Your task to perform on an android device: turn off wifi Image 0: 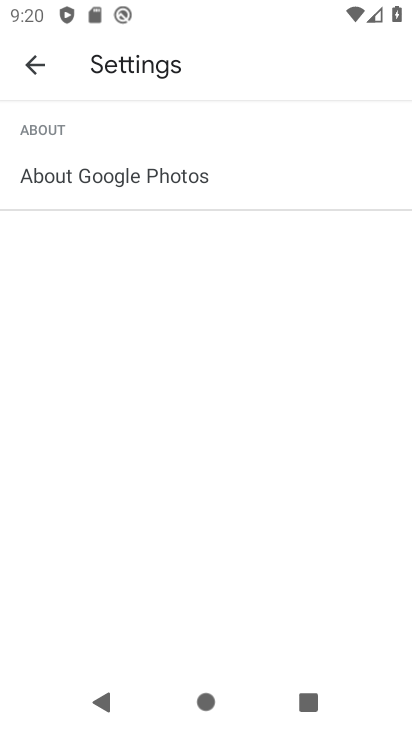
Step 0: press home button
Your task to perform on an android device: turn off wifi Image 1: 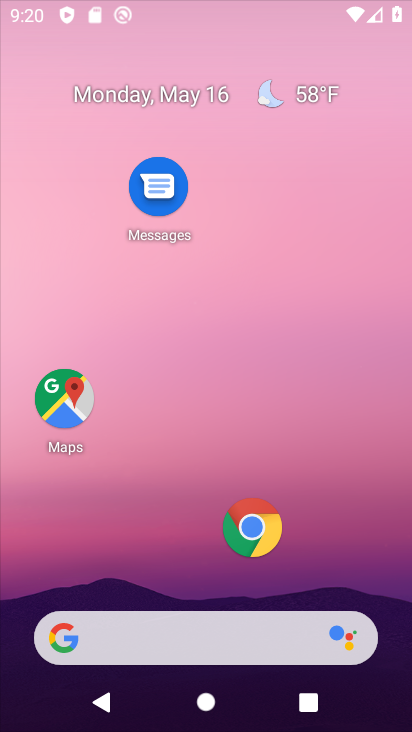
Step 1: drag from (204, 578) to (256, 59)
Your task to perform on an android device: turn off wifi Image 2: 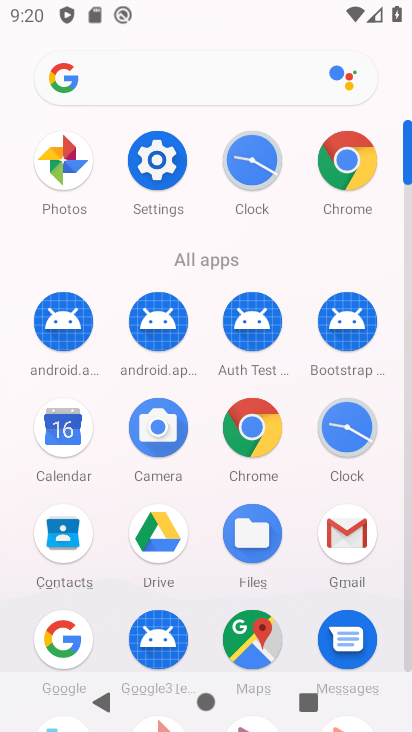
Step 2: click (169, 161)
Your task to perform on an android device: turn off wifi Image 3: 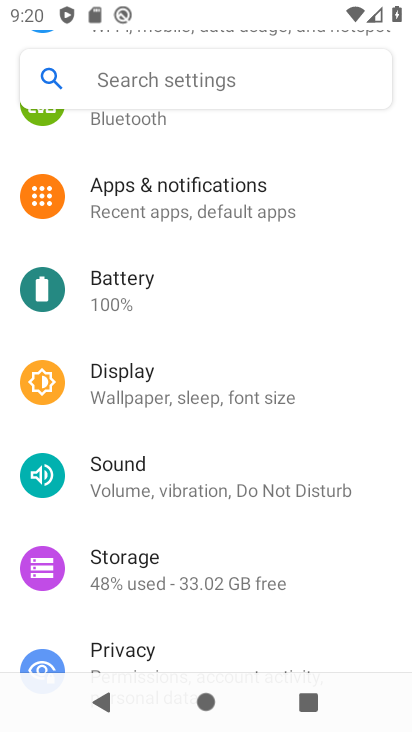
Step 3: drag from (184, 229) to (339, 626)
Your task to perform on an android device: turn off wifi Image 4: 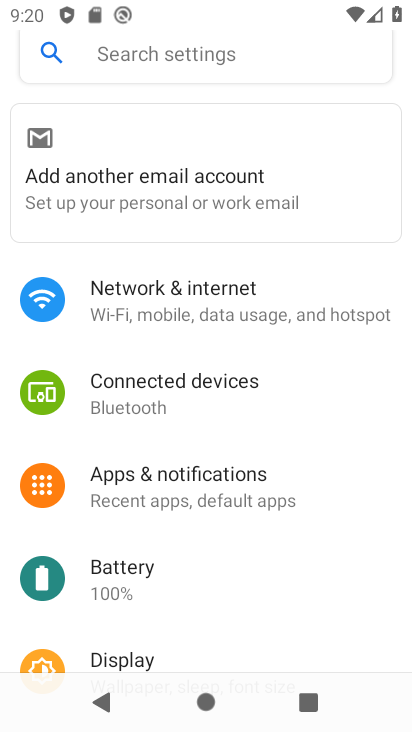
Step 4: click (152, 331)
Your task to perform on an android device: turn off wifi Image 5: 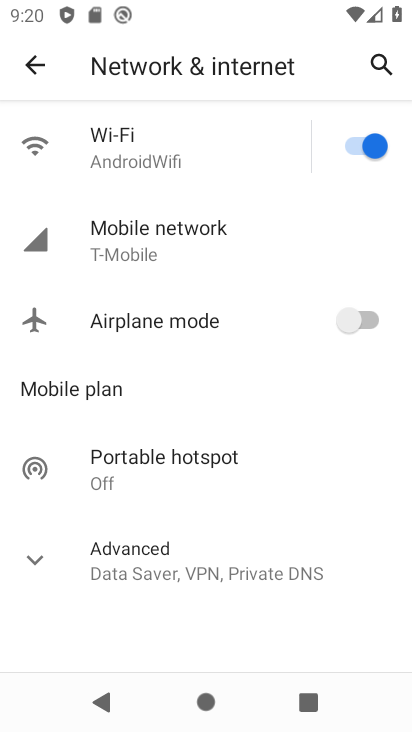
Step 5: click (369, 150)
Your task to perform on an android device: turn off wifi Image 6: 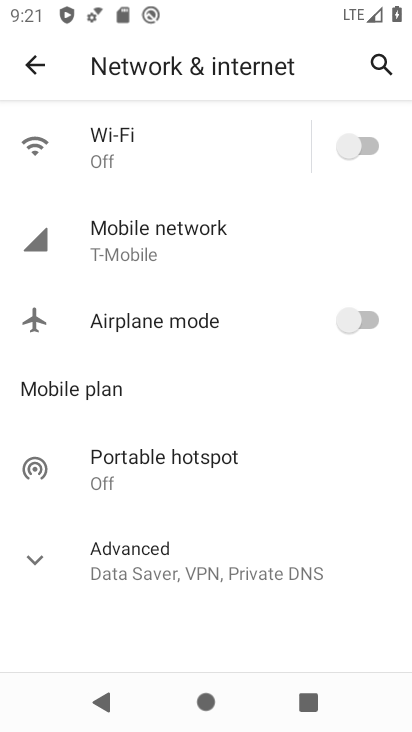
Step 6: task complete